Your task to perform on an android device: Turn off the flashlight Image 0: 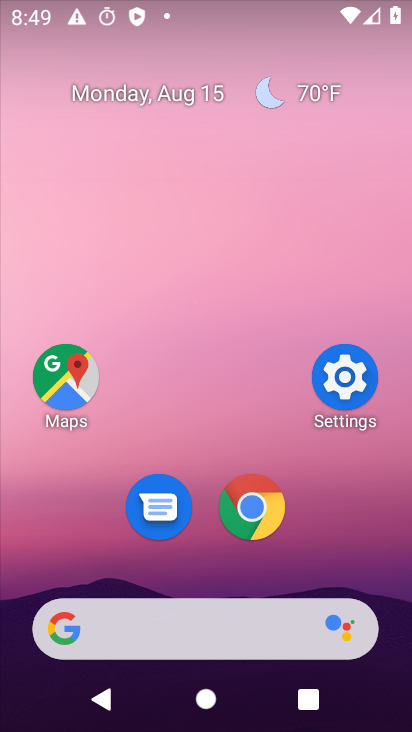
Step 0: drag from (251, 9) to (219, 453)
Your task to perform on an android device: Turn off the flashlight Image 1: 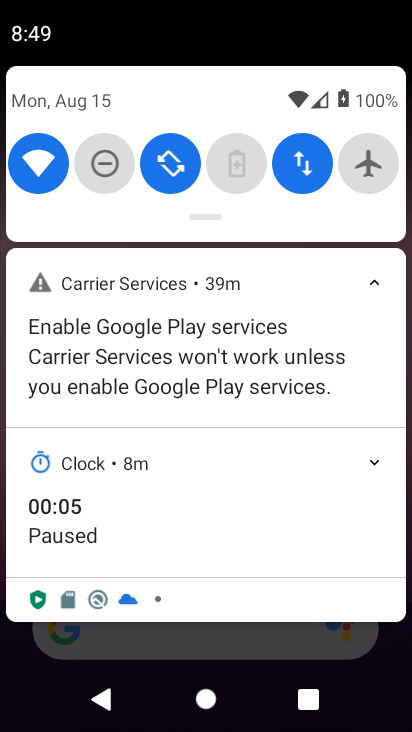
Step 1: task complete